Your task to perform on an android device: Open Youtube and go to the subscriptions tab Image 0: 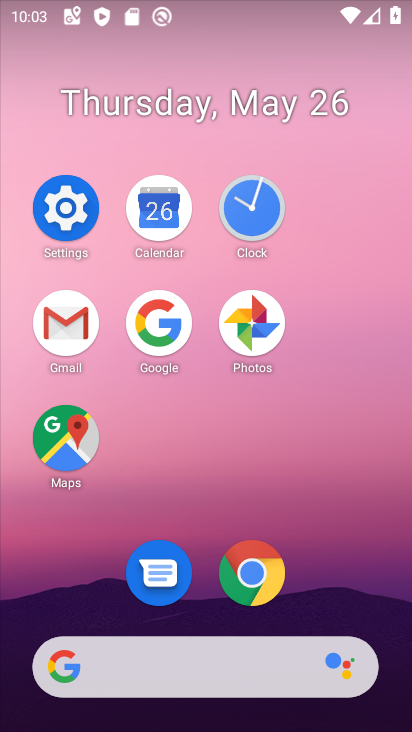
Step 0: drag from (343, 579) to (383, 130)
Your task to perform on an android device: Open Youtube and go to the subscriptions tab Image 1: 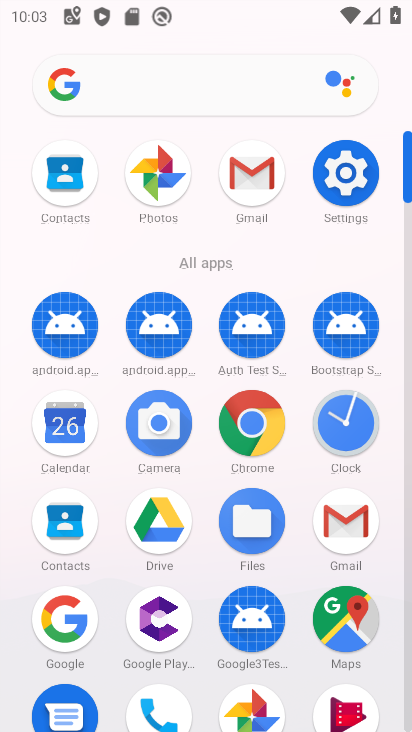
Step 1: drag from (317, 565) to (359, 59)
Your task to perform on an android device: Open Youtube and go to the subscriptions tab Image 2: 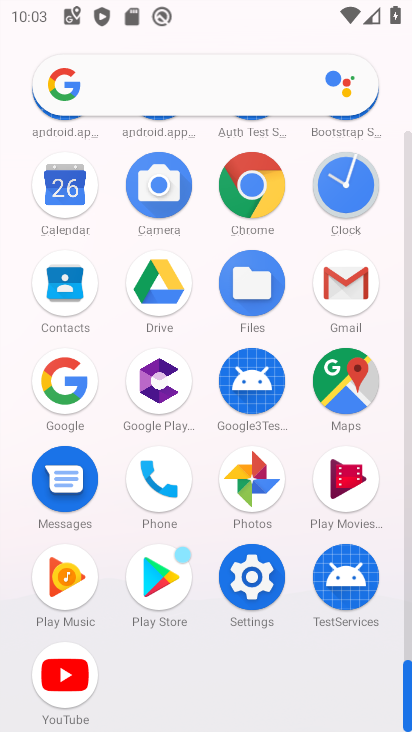
Step 2: click (73, 692)
Your task to perform on an android device: Open Youtube and go to the subscriptions tab Image 3: 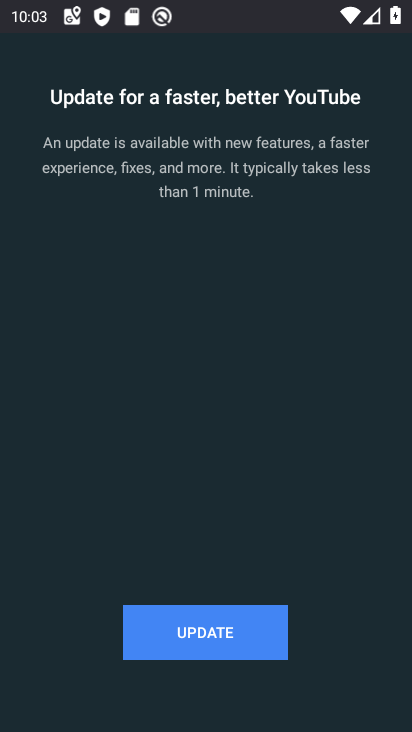
Step 3: click (176, 632)
Your task to perform on an android device: Open Youtube and go to the subscriptions tab Image 4: 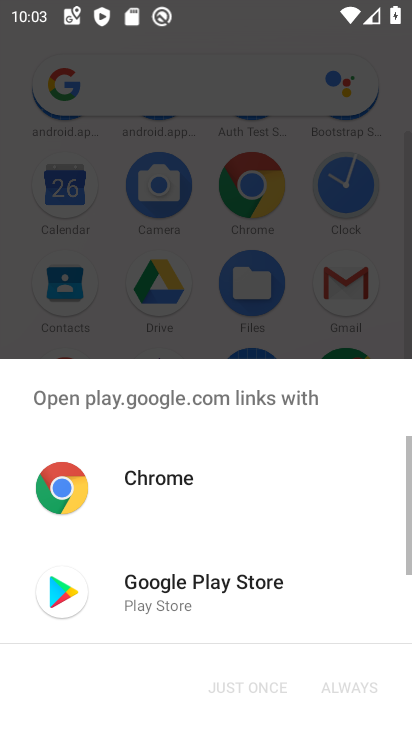
Step 4: click (293, 596)
Your task to perform on an android device: Open Youtube and go to the subscriptions tab Image 5: 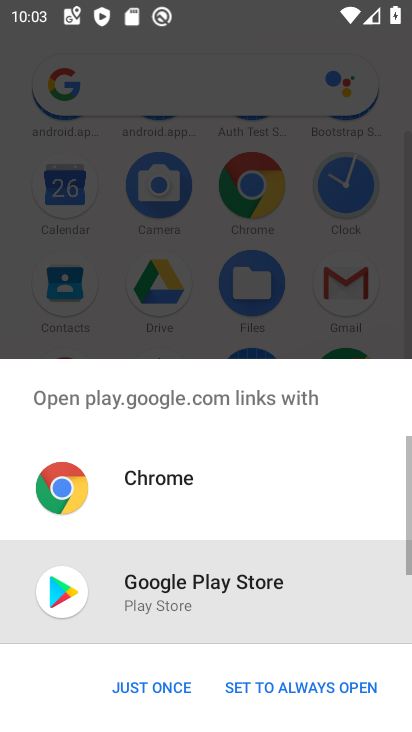
Step 5: drag from (192, 596) to (293, 596)
Your task to perform on an android device: Open Youtube and go to the subscriptions tab Image 6: 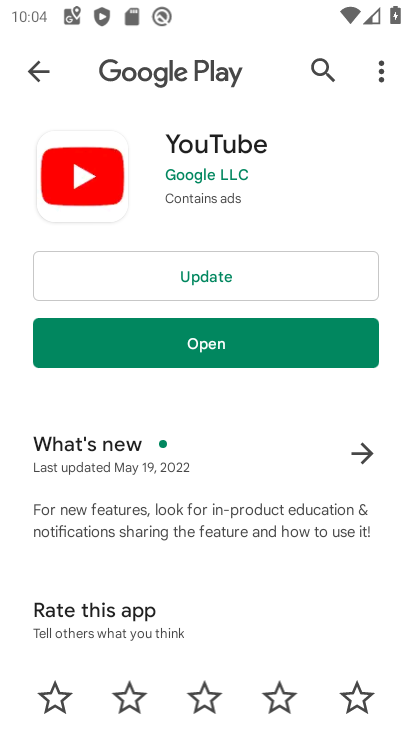
Step 6: click (301, 251)
Your task to perform on an android device: Open Youtube and go to the subscriptions tab Image 7: 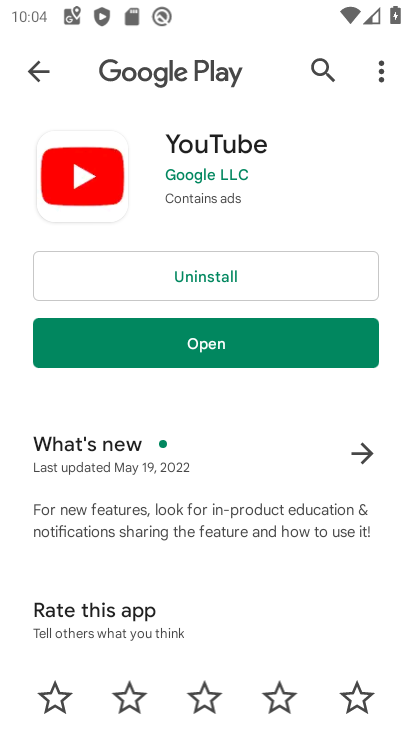
Step 7: click (196, 353)
Your task to perform on an android device: Open Youtube and go to the subscriptions tab Image 8: 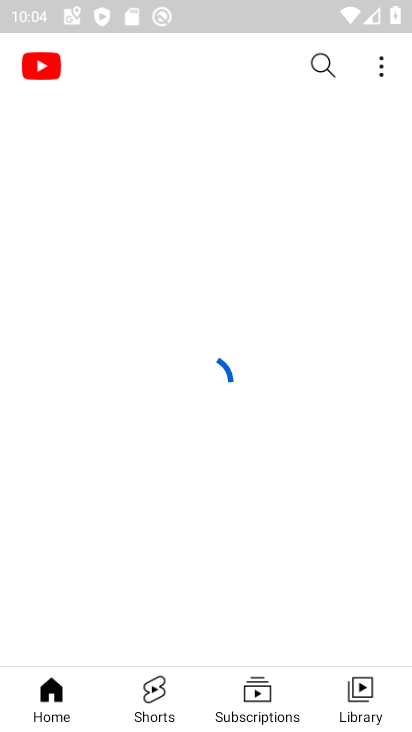
Step 8: click (264, 709)
Your task to perform on an android device: Open Youtube and go to the subscriptions tab Image 9: 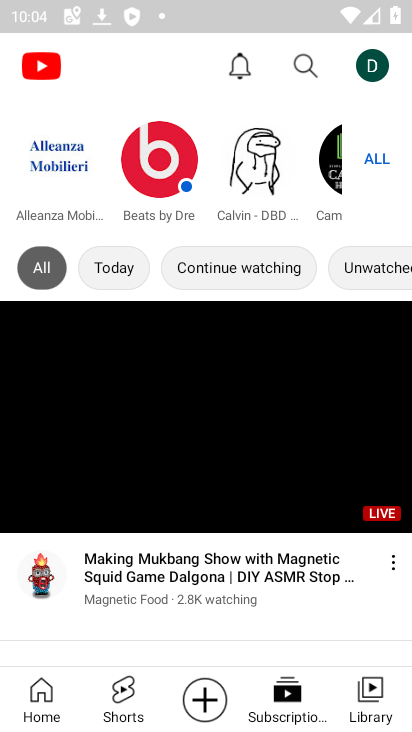
Step 9: task complete